Your task to perform on an android device: open the mobile data screen to see how much data has been used Image 0: 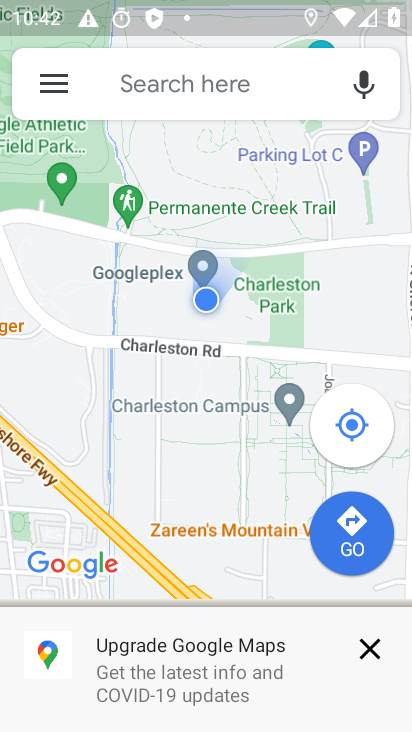
Step 0: press home button
Your task to perform on an android device: open the mobile data screen to see how much data has been used Image 1: 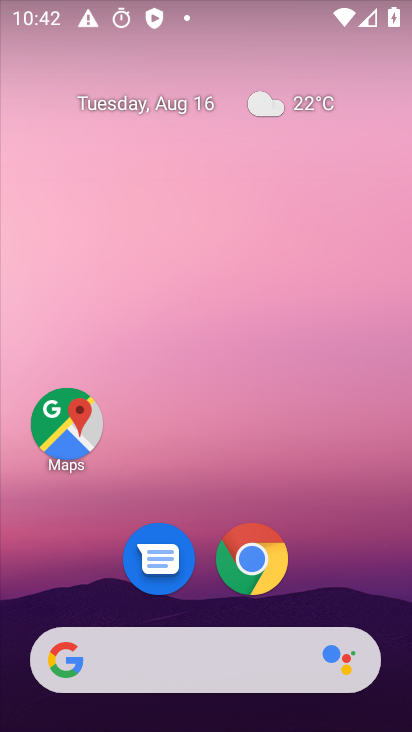
Step 1: drag from (200, 547) to (159, 21)
Your task to perform on an android device: open the mobile data screen to see how much data has been used Image 2: 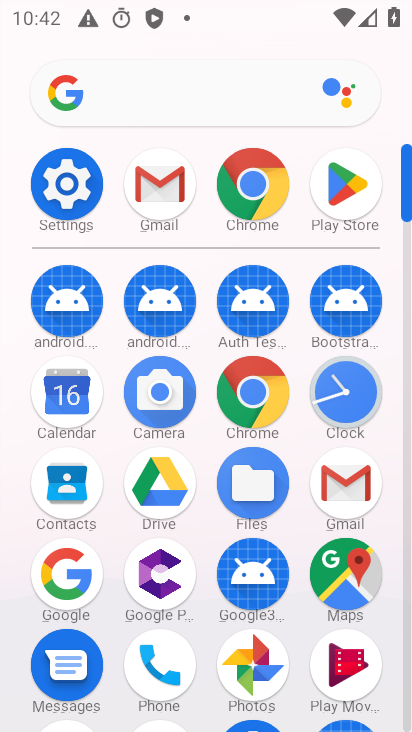
Step 2: click (67, 183)
Your task to perform on an android device: open the mobile data screen to see how much data has been used Image 3: 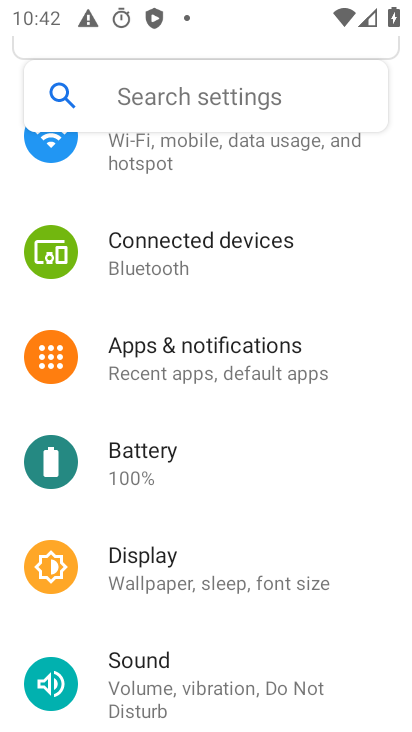
Step 3: drag from (188, 297) to (188, 401)
Your task to perform on an android device: open the mobile data screen to see how much data has been used Image 4: 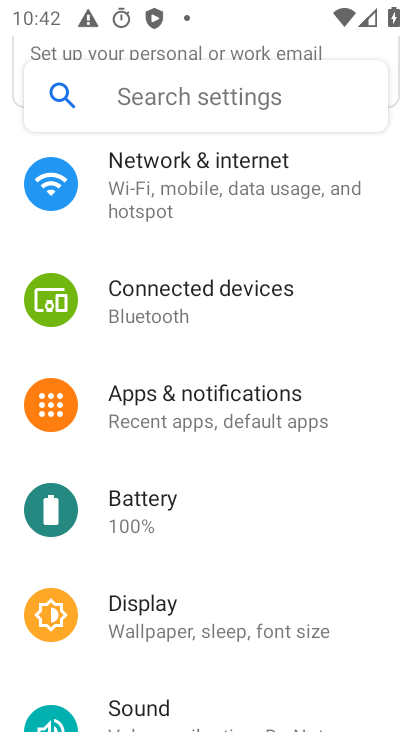
Step 4: click (175, 192)
Your task to perform on an android device: open the mobile data screen to see how much data has been used Image 5: 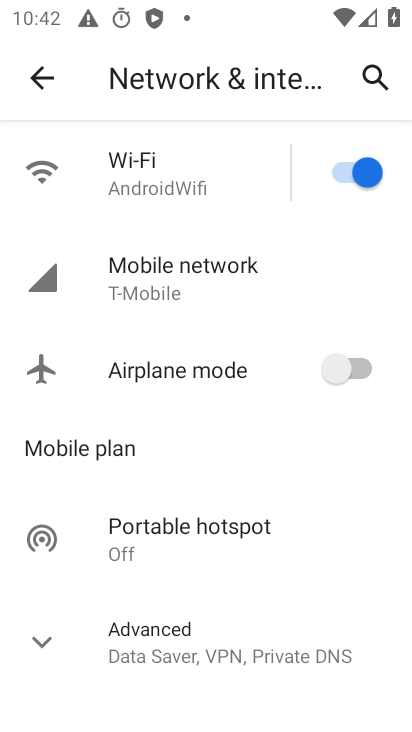
Step 5: click (181, 301)
Your task to perform on an android device: open the mobile data screen to see how much data has been used Image 6: 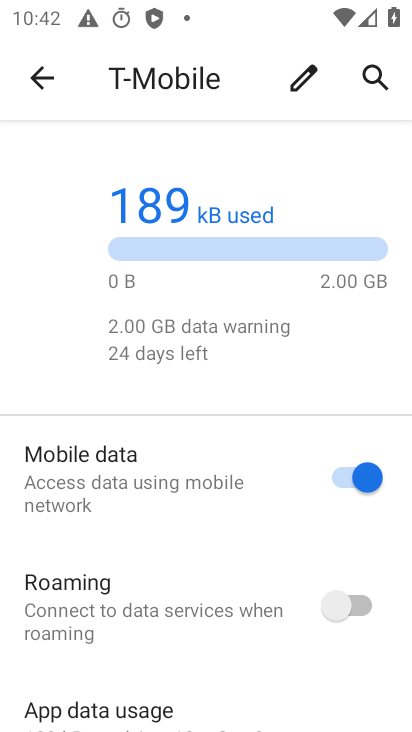
Step 6: task complete